Your task to perform on an android device: open the mobile data screen to see how much data has been used Image 0: 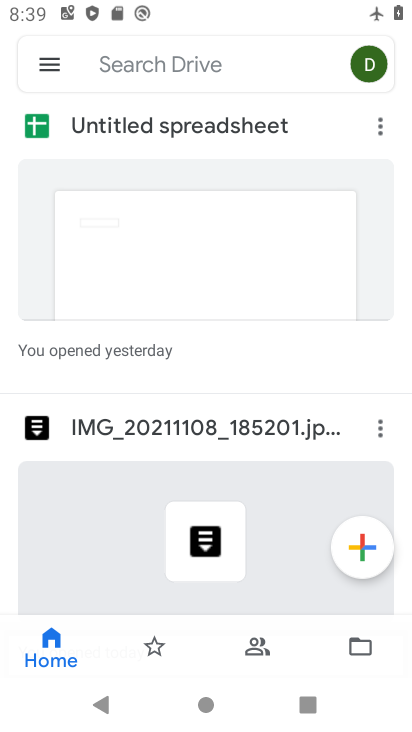
Step 0: press home button
Your task to perform on an android device: open the mobile data screen to see how much data has been used Image 1: 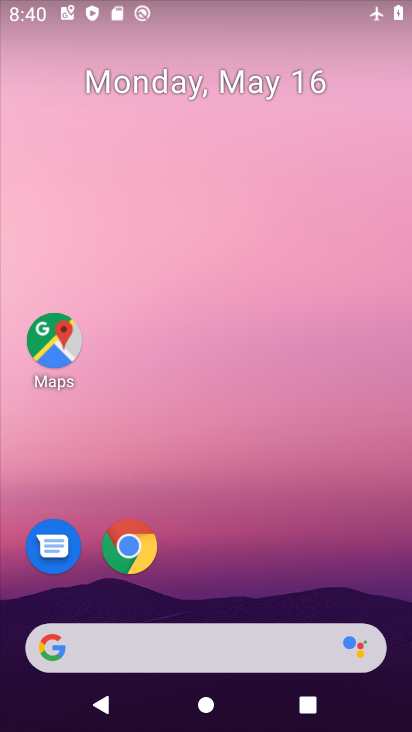
Step 1: drag from (277, 664) to (305, 144)
Your task to perform on an android device: open the mobile data screen to see how much data has been used Image 2: 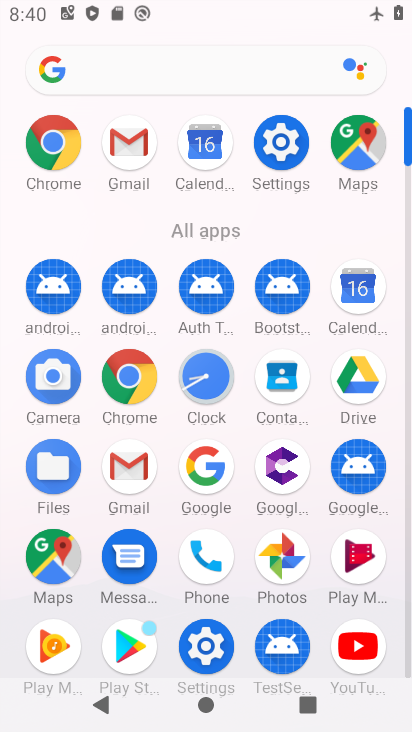
Step 2: click (191, 635)
Your task to perform on an android device: open the mobile data screen to see how much data has been used Image 3: 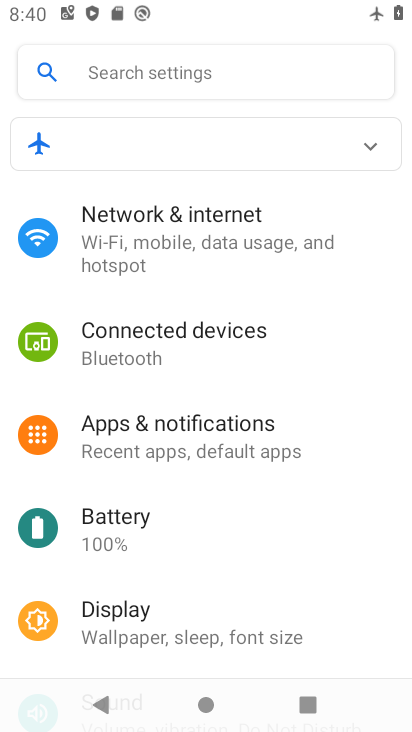
Step 3: click (191, 76)
Your task to perform on an android device: open the mobile data screen to see how much data has been used Image 4: 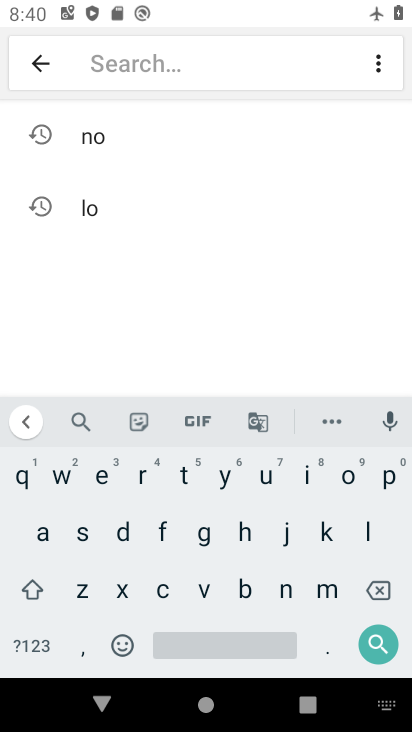
Step 4: click (118, 545)
Your task to perform on an android device: open the mobile data screen to see how much data has been used Image 5: 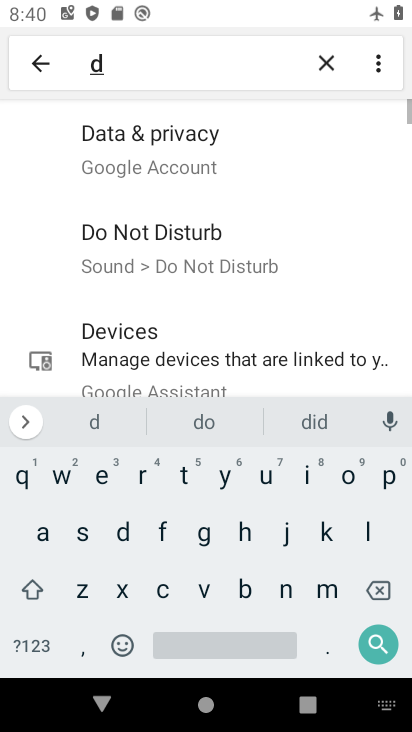
Step 5: click (38, 535)
Your task to perform on an android device: open the mobile data screen to see how much data has been used Image 6: 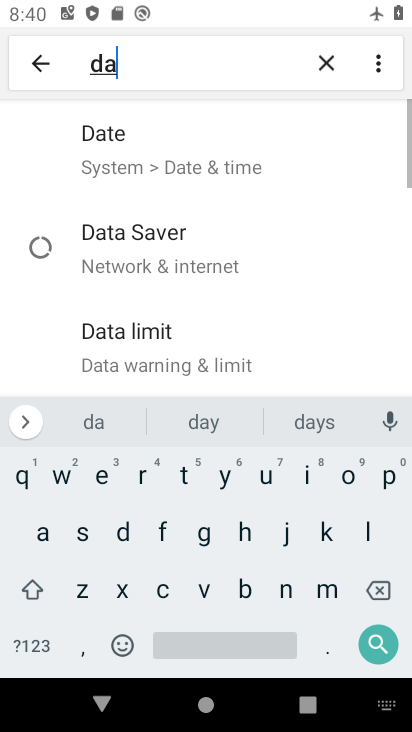
Step 6: click (178, 483)
Your task to perform on an android device: open the mobile data screen to see how much data has been used Image 7: 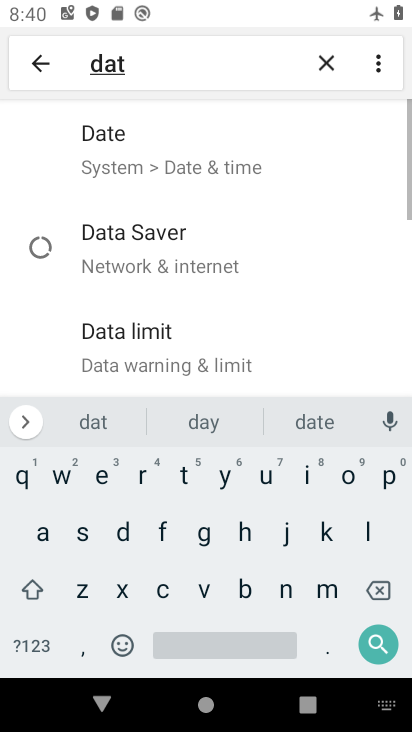
Step 7: click (40, 531)
Your task to perform on an android device: open the mobile data screen to see how much data has been used Image 8: 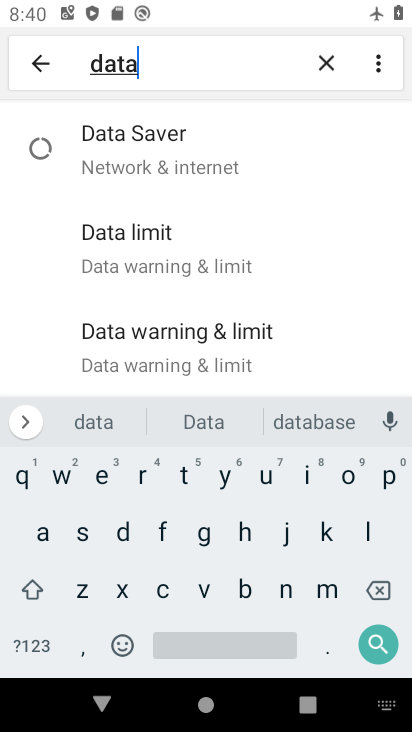
Step 8: click (212, 644)
Your task to perform on an android device: open the mobile data screen to see how much data has been used Image 9: 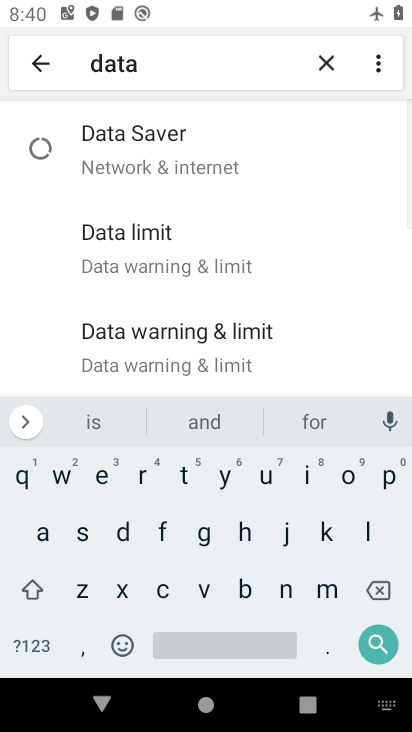
Step 9: click (266, 481)
Your task to perform on an android device: open the mobile data screen to see how much data has been used Image 10: 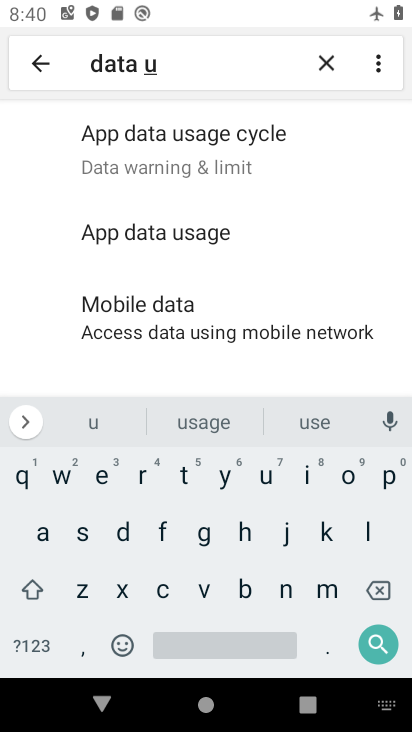
Step 10: click (149, 231)
Your task to perform on an android device: open the mobile data screen to see how much data has been used Image 11: 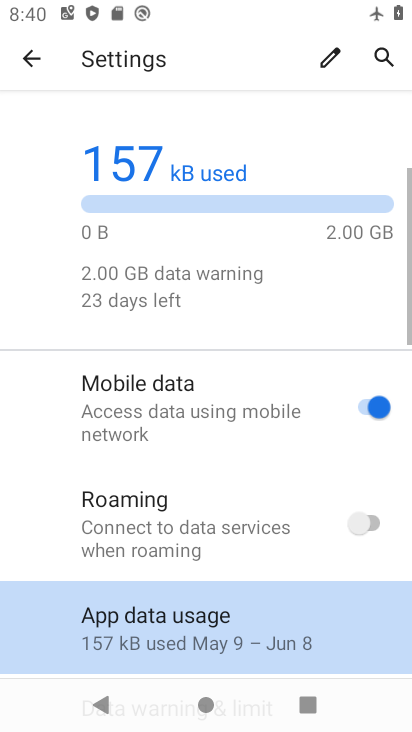
Step 11: click (138, 605)
Your task to perform on an android device: open the mobile data screen to see how much data has been used Image 12: 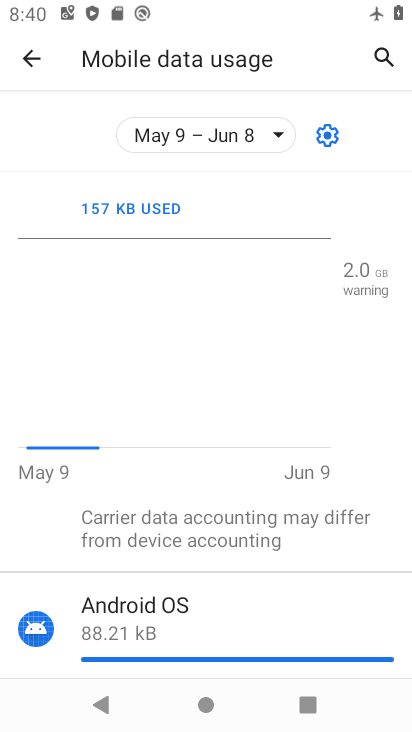
Step 12: task complete